Your task to perform on an android device: turn off javascript in the chrome app Image 0: 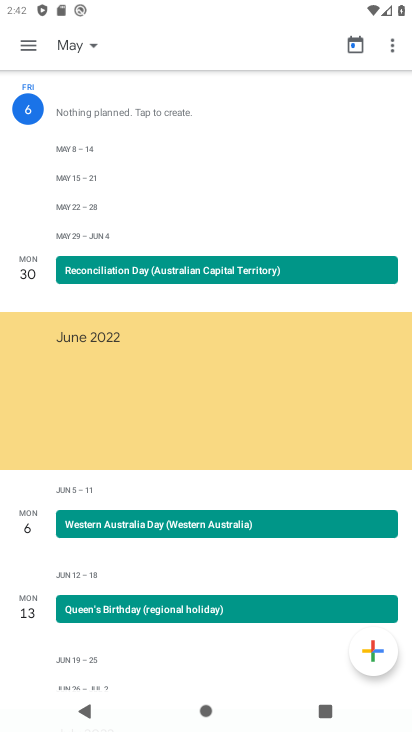
Step 0: press home button
Your task to perform on an android device: turn off javascript in the chrome app Image 1: 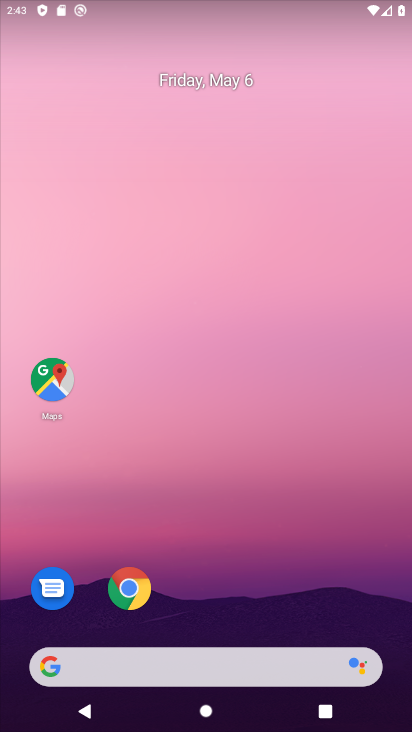
Step 1: click (136, 578)
Your task to perform on an android device: turn off javascript in the chrome app Image 2: 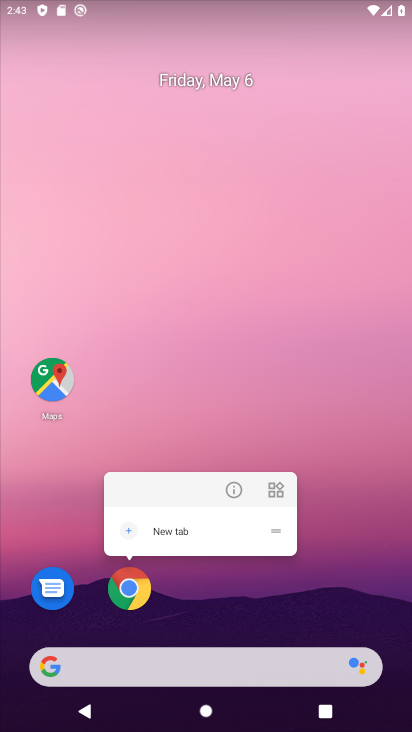
Step 2: click (130, 591)
Your task to perform on an android device: turn off javascript in the chrome app Image 3: 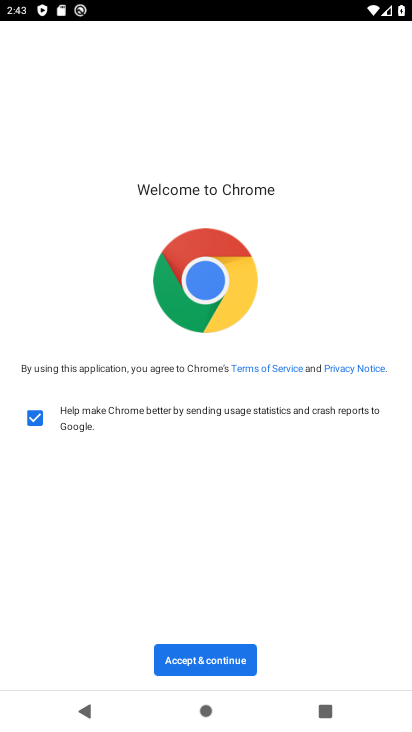
Step 3: click (177, 655)
Your task to perform on an android device: turn off javascript in the chrome app Image 4: 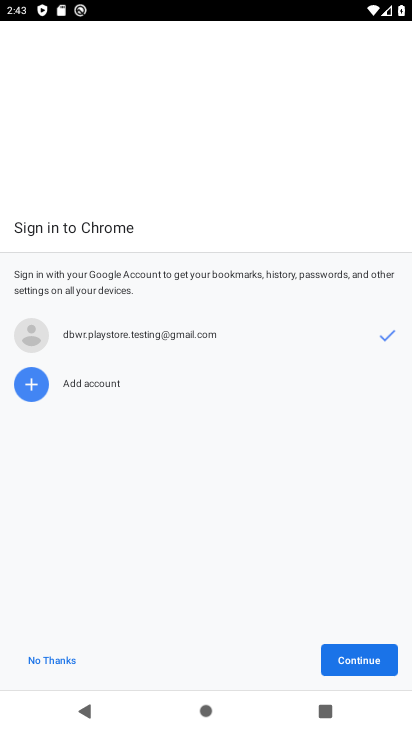
Step 4: click (334, 662)
Your task to perform on an android device: turn off javascript in the chrome app Image 5: 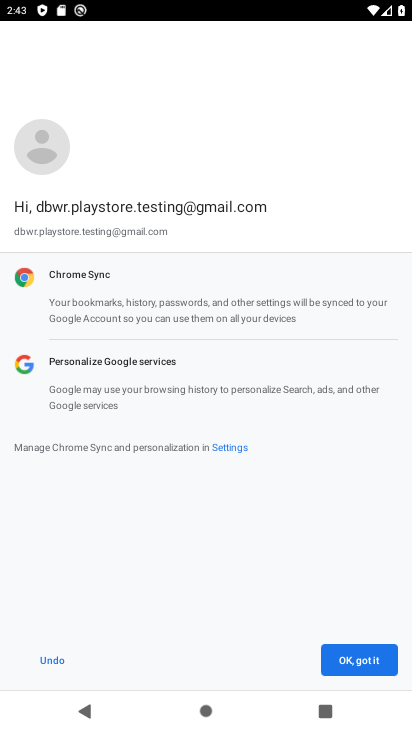
Step 5: click (334, 661)
Your task to perform on an android device: turn off javascript in the chrome app Image 6: 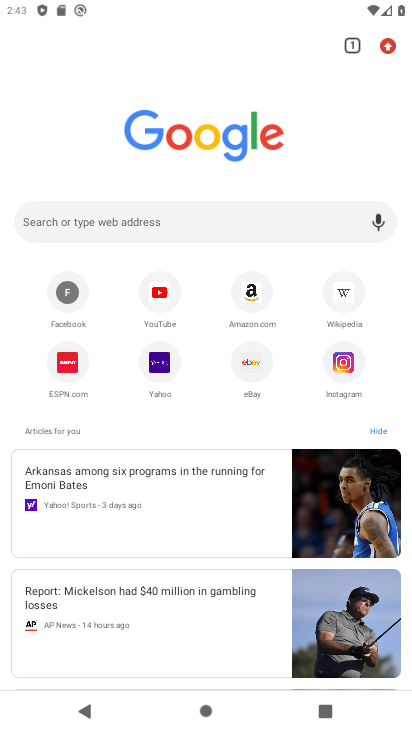
Step 6: click (389, 43)
Your task to perform on an android device: turn off javascript in the chrome app Image 7: 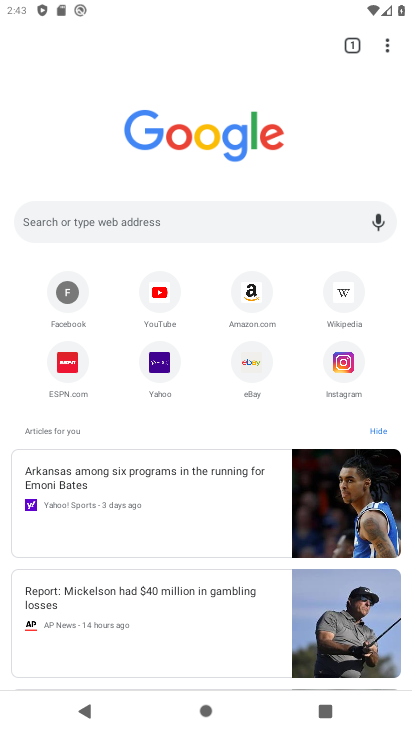
Step 7: click (388, 45)
Your task to perform on an android device: turn off javascript in the chrome app Image 8: 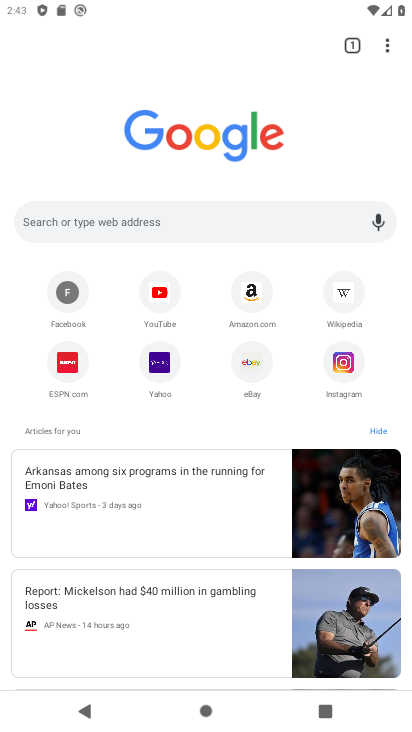
Step 8: click (383, 46)
Your task to perform on an android device: turn off javascript in the chrome app Image 9: 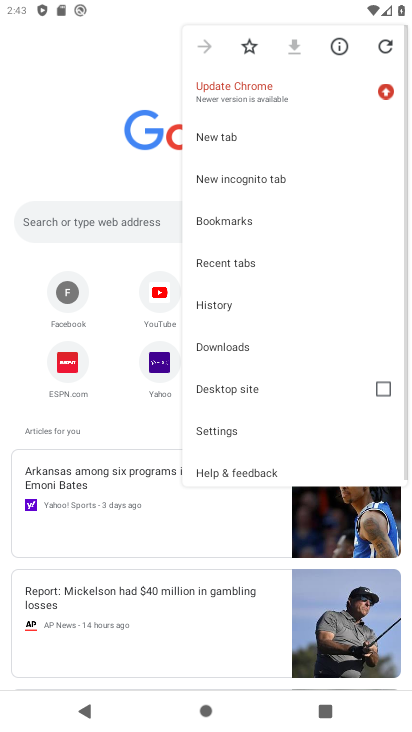
Step 9: drag from (311, 454) to (293, 165)
Your task to perform on an android device: turn off javascript in the chrome app Image 10: 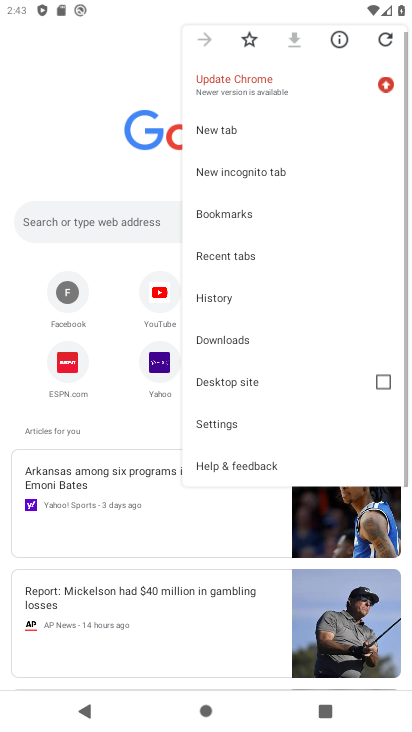
Step 10: click (226, 419)
Your task to perform on an android device: turn off javascript in the chrome app Image 11: 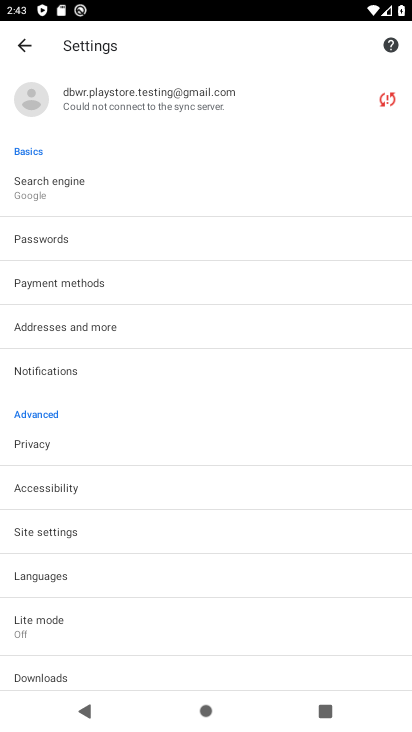
Step 11: drag from (147, 671) to (202, 295)
Your task to perform on an android device: turn off javascript in the chrome app Image 12: 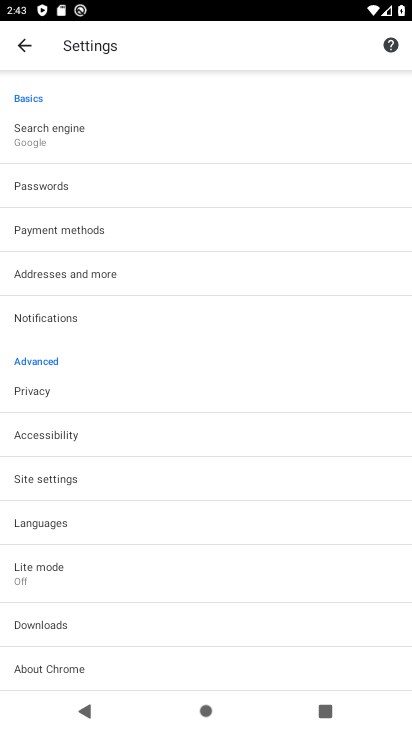
Step 12: click (39, 474)
Your task to perform on an android device: turn off javascript in the chrome app Image 13: 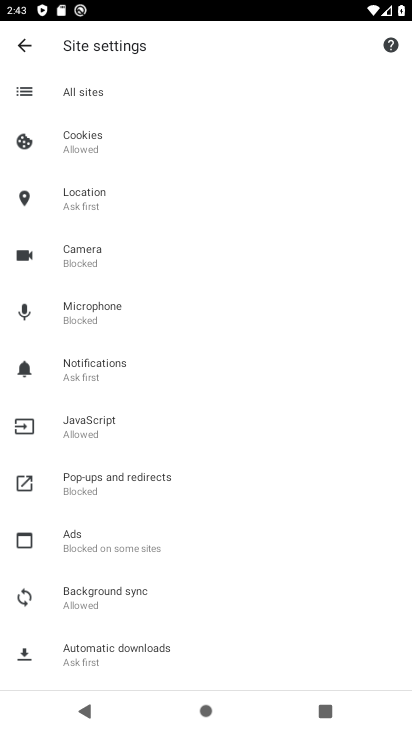
Step 13: click (105, 435)
Your task to perform on an android device: turn off javascript in the chrome app Image 14: 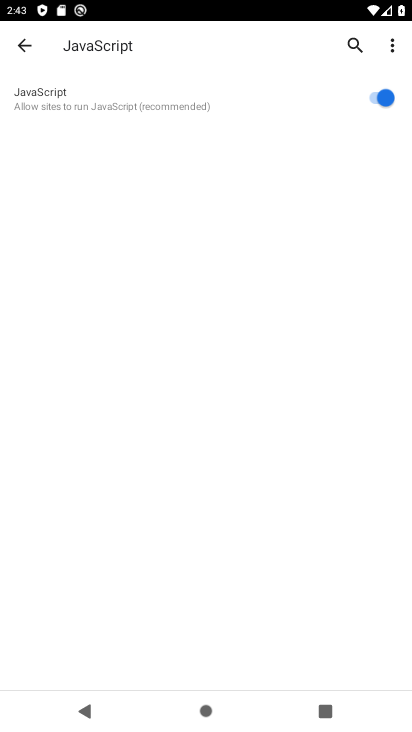
Step 14: click (371, 93)
Your task to perform on an android device: turn off javascript in the chrome app Image 15: 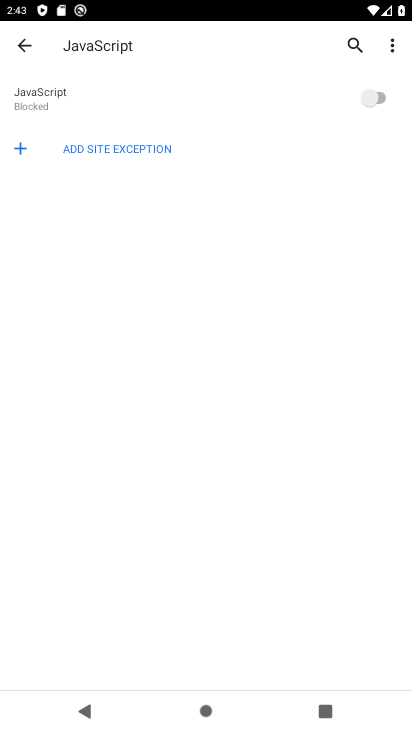
Step 15: task complete